Your task to perform on an android device: Open settings Image 0: 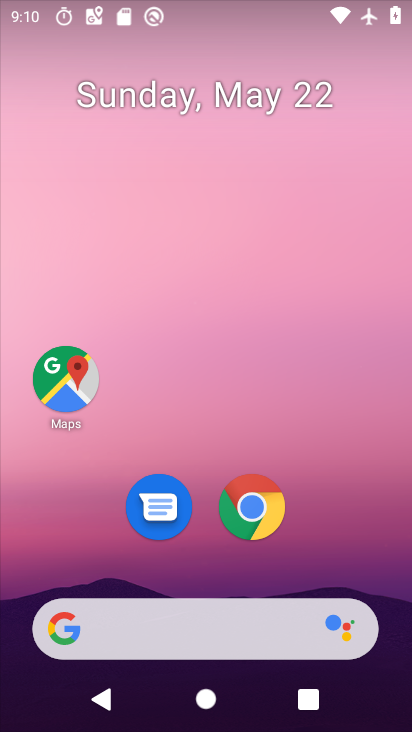
Step 0: drag from (193, 560) to (237, 7)
Your task to perform on an android device: Open settings Image 1: 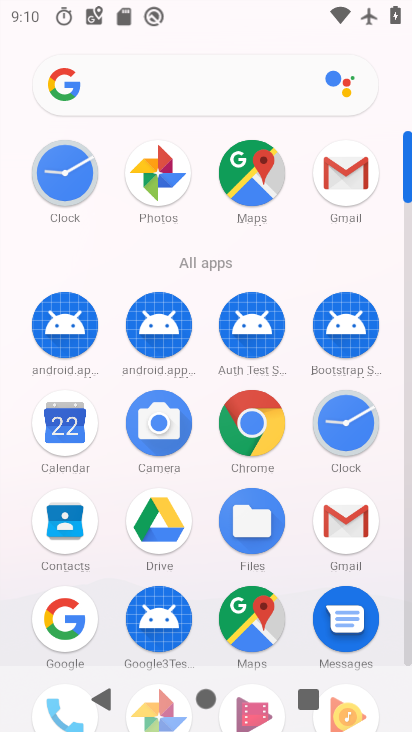
Step 1: drag from (202, 567) to (407, 46)
Your task to perform on an android device: Open settings Image 2: 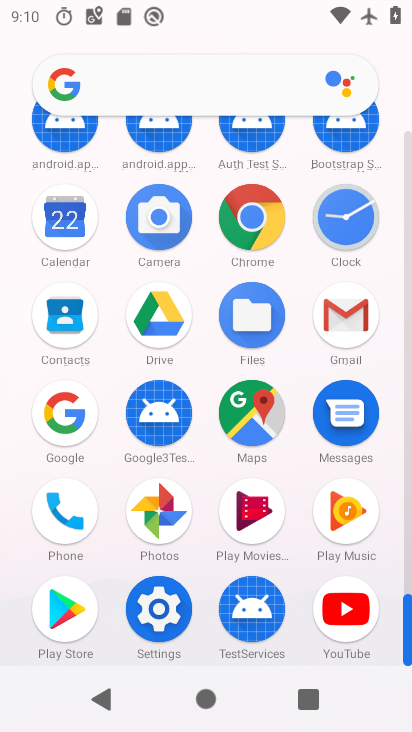
Step 2: click (167, 584)
Your task to perform on an android device: Open settings Image 3: 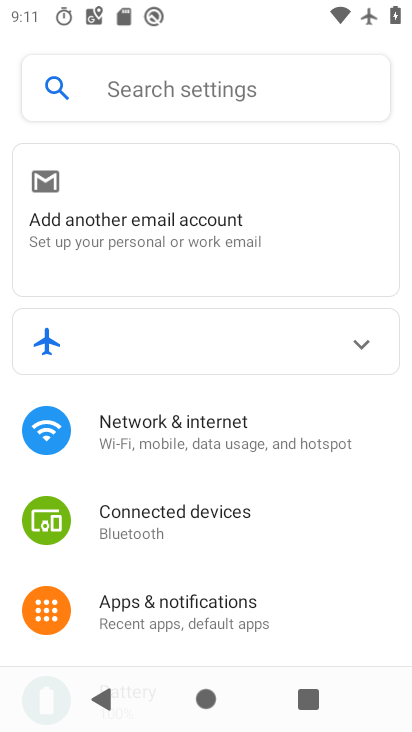
Step 3: task complete